Your task to perform on an android device: Show me popular games on the Play Store Image 0: 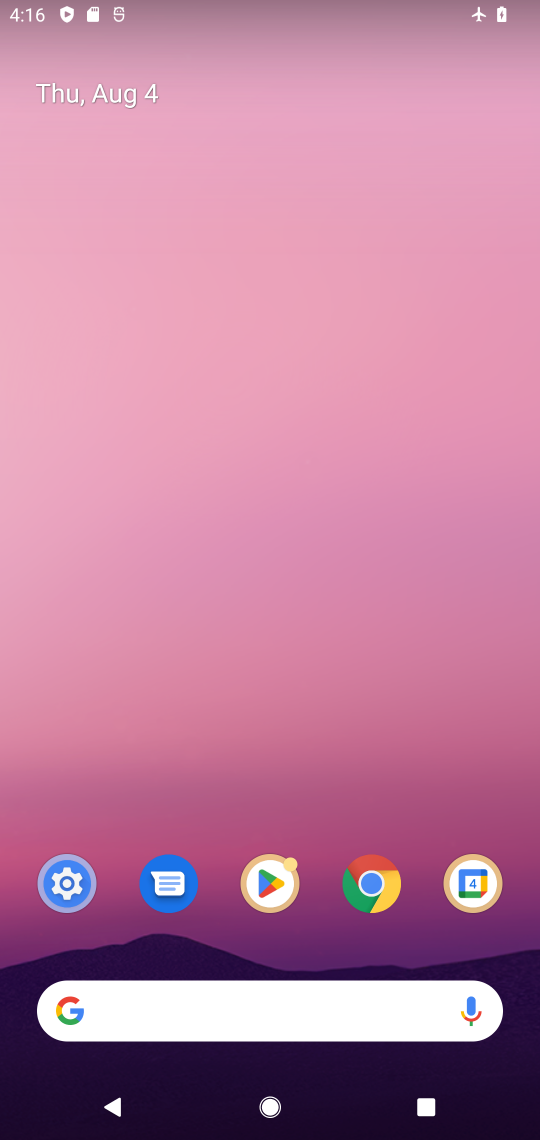
Step 0: drag from (330, 849) to (320, 27)
Your task to perform on an android device: Show me popular games on the Play Store Image 1: 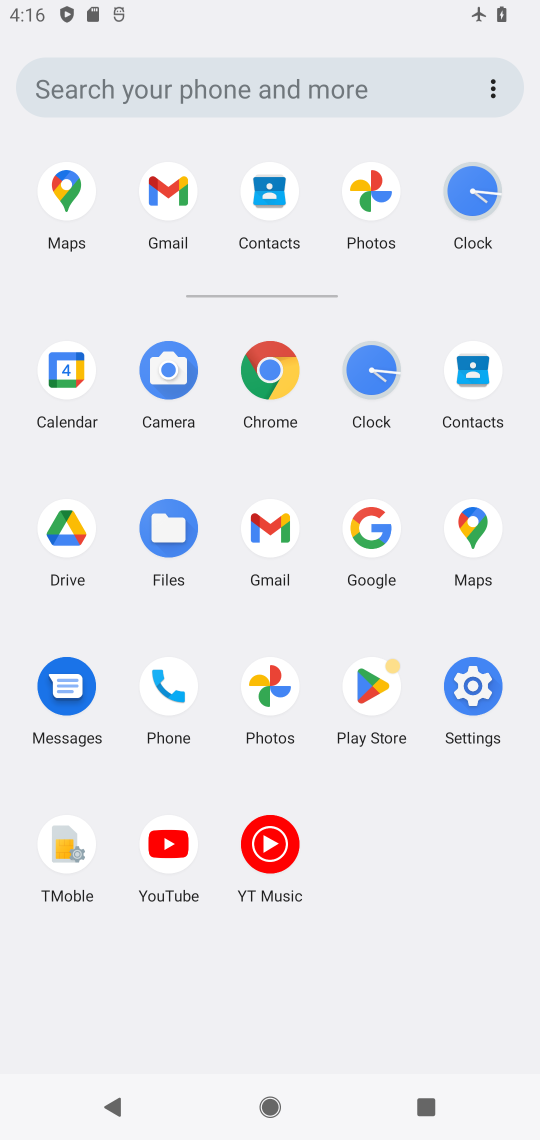
Step 1: click (371, 692)
Your task to perform on an android device: Show me popular games on the Play Store Image 2: 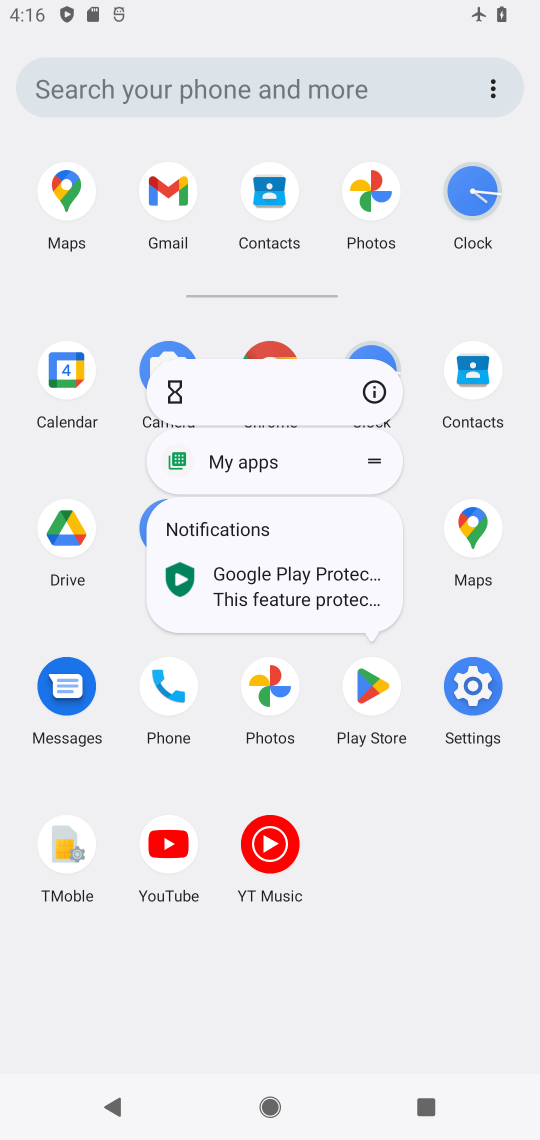
Step 2: click (371, 692)
Your task to perform on an android device: Show me popular games on the Play Store Image 3: 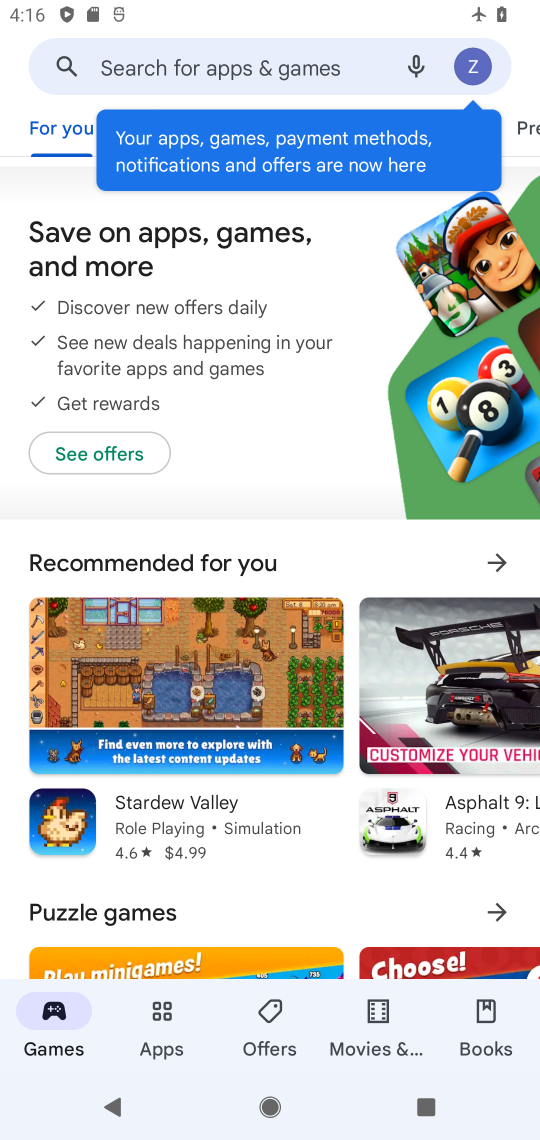
Step 3: task complete